Your task to perform on an android device: toggle data saver in the chrome app Image 0: 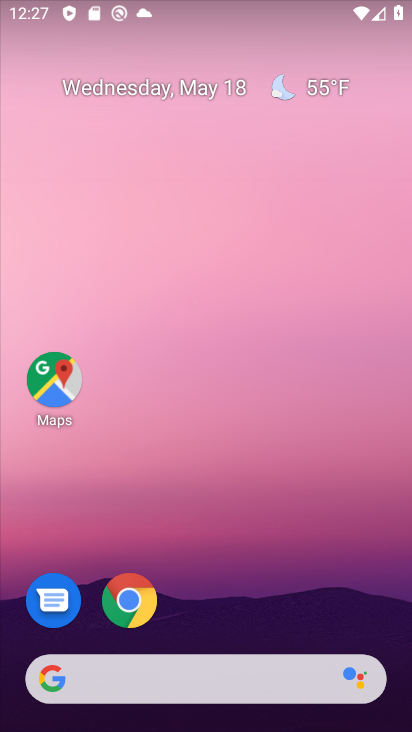
Step 0: click (117, 596)
Your task to perform on an android device: toggle data saver in the chrome app Image 1: 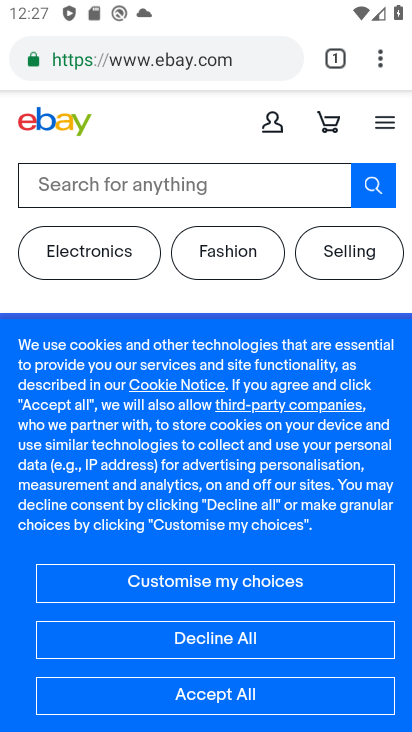
Step 1: click (398, 59)
Your task to perform on an android device: toggle data saver in the chrome app Image 2: 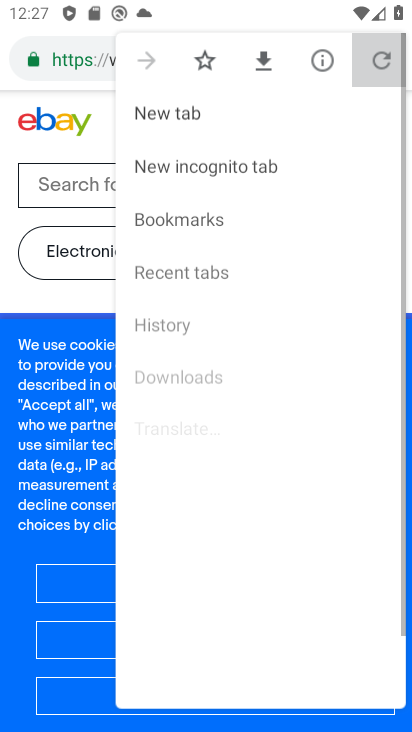
Step 2: drag from (378, 55) to (178, 632)
Your task to perform on an android device: toggle data saver in the chrome app Image 3: 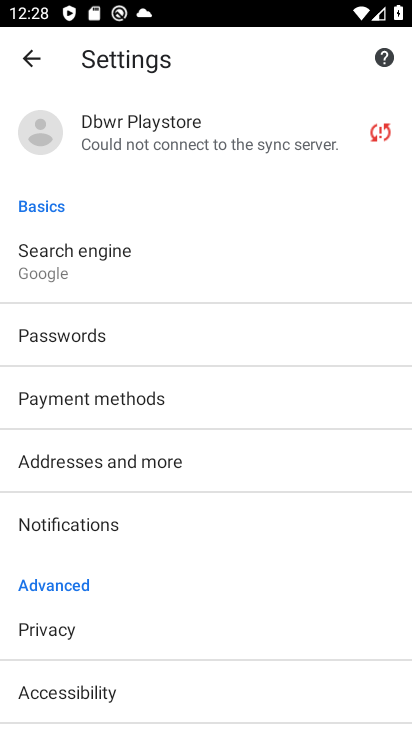
Step 3: drag from (163, 577) to (166, 162)
Your task to perform on an android device: toggle data saver in the chrome app Image 4: 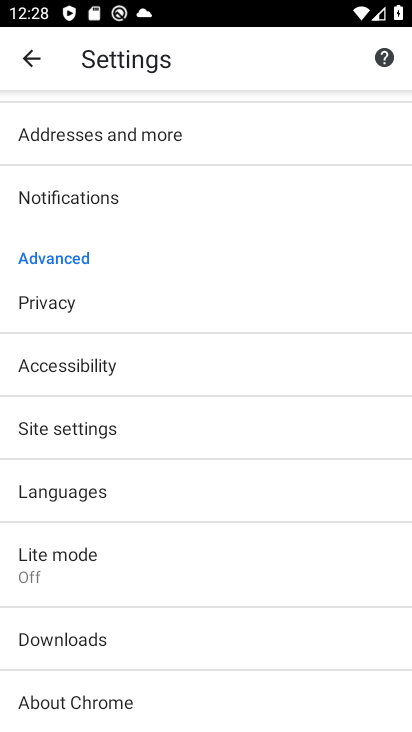
Step 4: click (115, 566)
Your task to perform on an android device: toggle data saver in the chrome app Image 5: 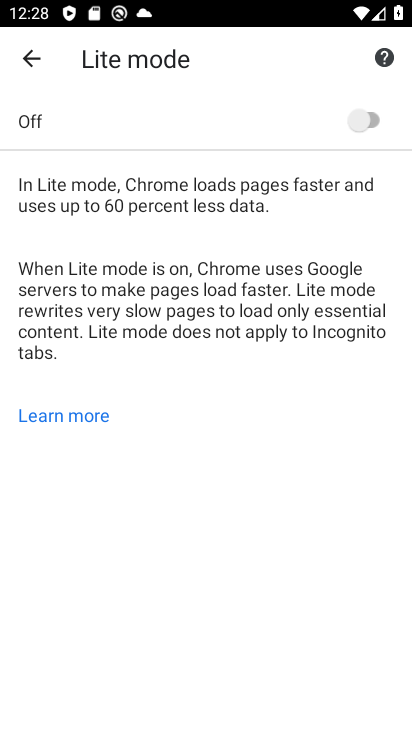
Step 5: click (372, 116)
Your task to perform on an android device: toggle data saver in the chrome app Image 6: 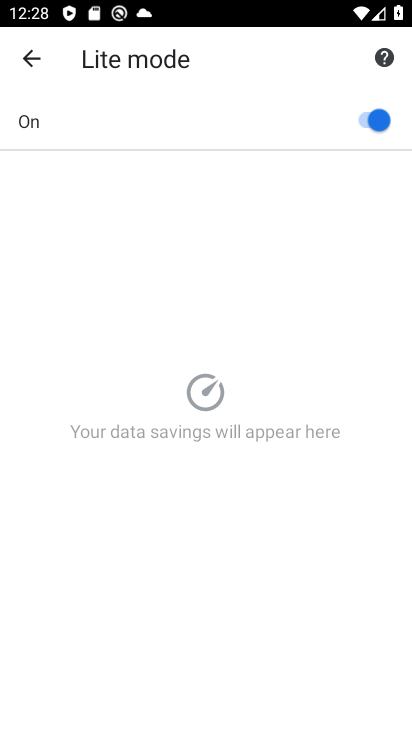
Step 6: task complete